Your task to perform on an android device: add a contact Image 0: 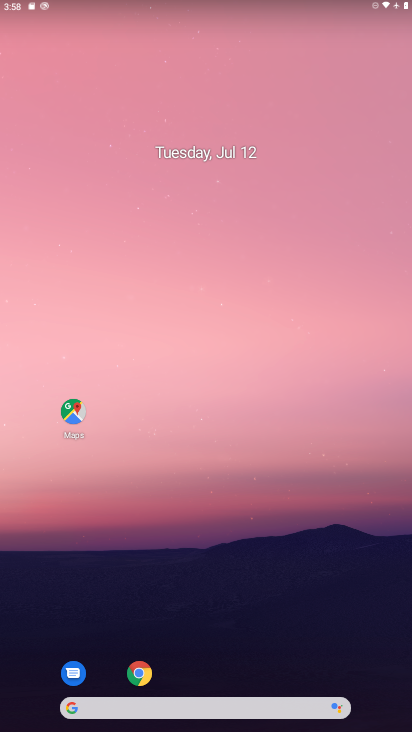
Step 0: drag from (201, 709) to (231, 63)
Your task to perform on an android device: add a contact Image 1: 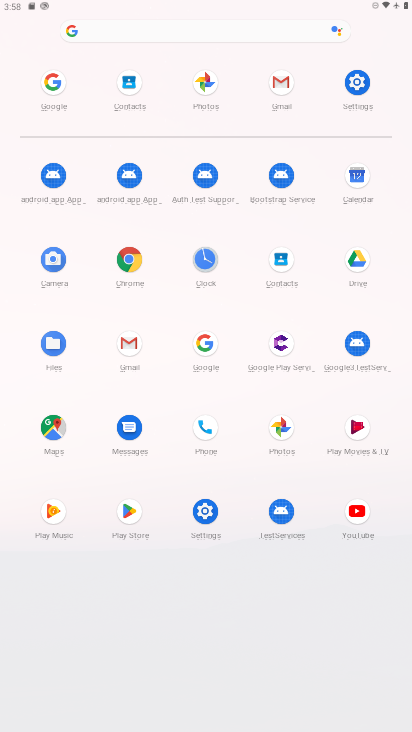
Step 1: click (282, 258)
Your task to perform on an android device: add a contact Image 2: 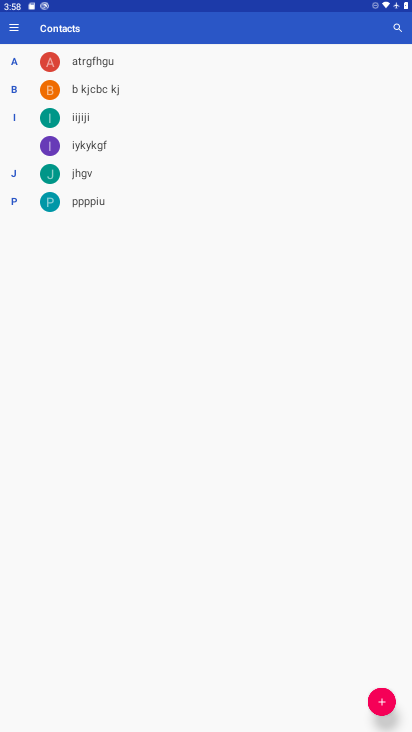
Step 2: click (385, 702)
Your task to perform on an android device: add a contact Image 3: 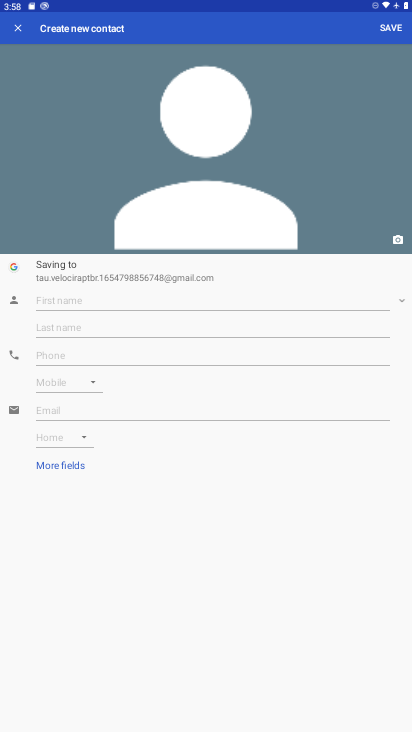
Step 3: click (117, 296)
Your task to perform on an android device: add a contact Image 4: 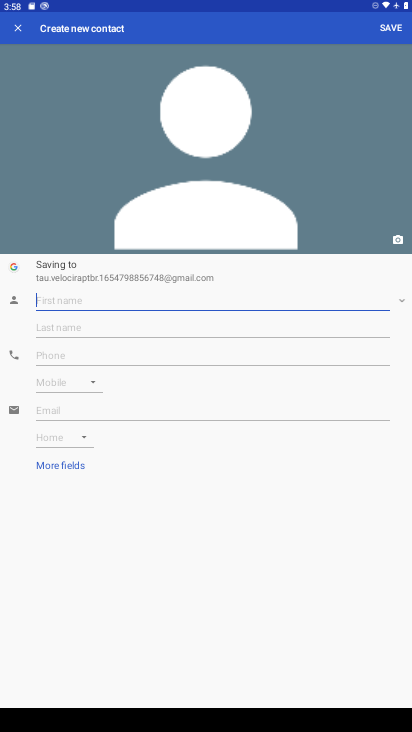
Step 4: type "Gangadhar"
Your task to perform on an android device: add a contact Image 5: 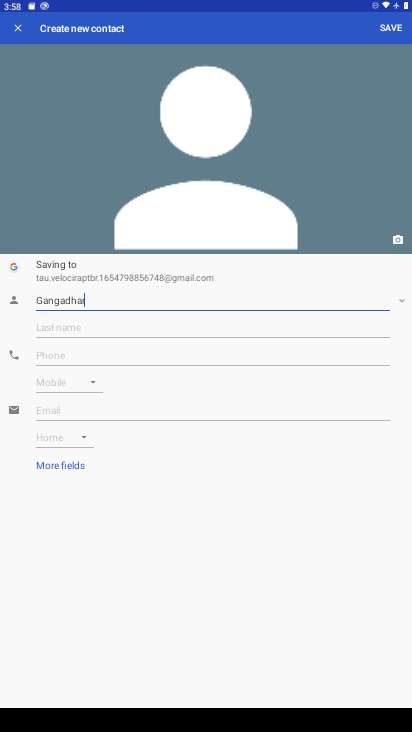
Step 5: click (270, 328)
Your task to perform on an android device: add a contact Image 6: 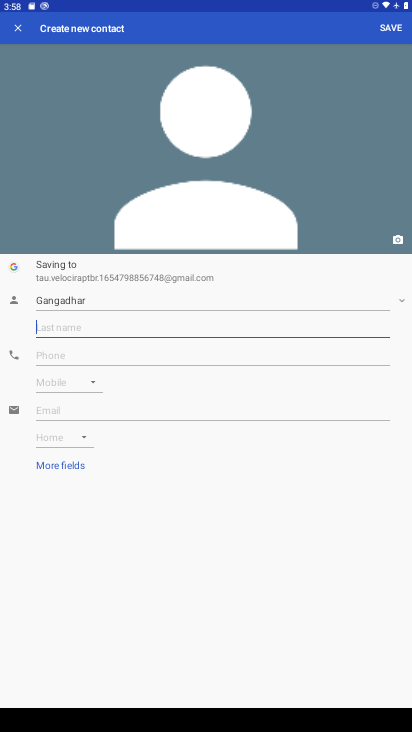
Step 6: type "Tilak"
Your task to perform on an android device: add a contact Image 7: 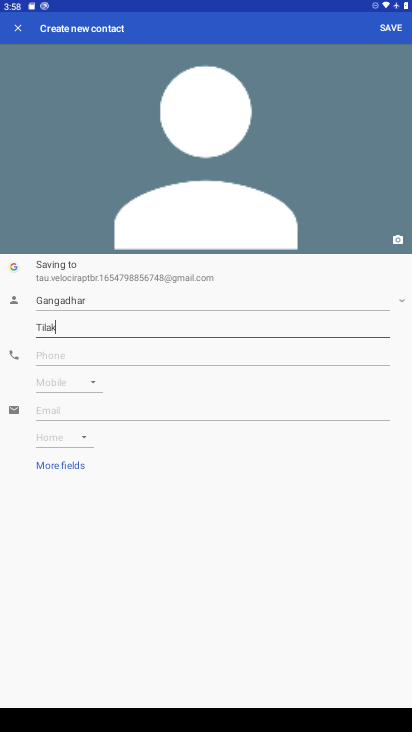
Step 7: click (120, 358)
Your task to perform on an android device: add a contact Image 8: 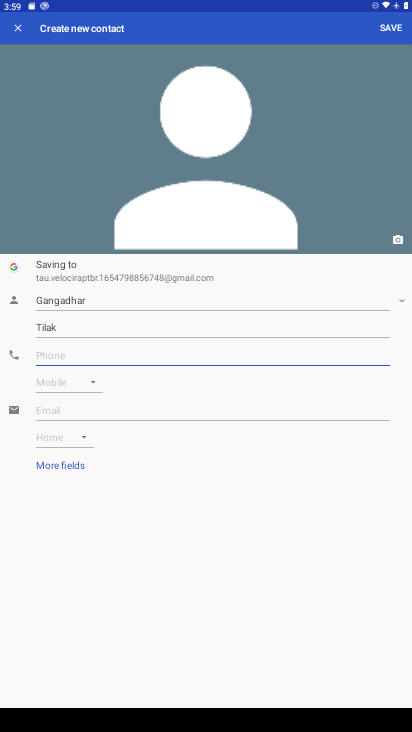
Step 8: type "0997722113377"
Your task to perform on an android device: add a contact Image 9: 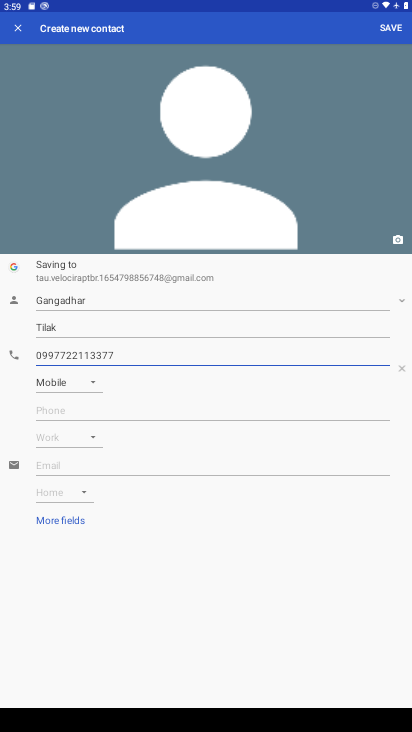
Step 9: click (383, 27)
Your task to perform on an android device: add a contact Image 10: 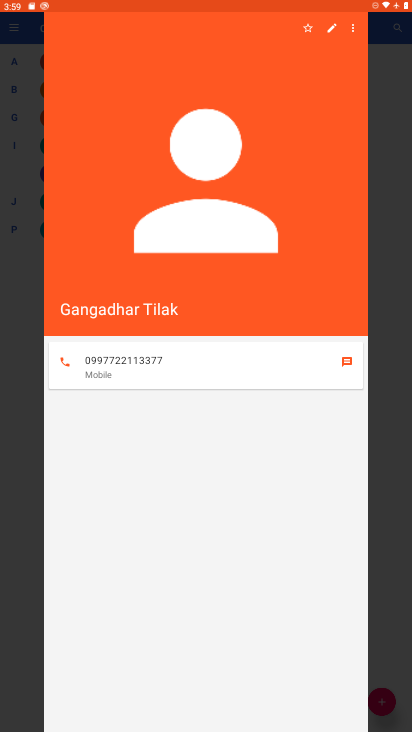
Step 10: task complete